Your task to perform on an android device: delete browsing data in the chrome app Image 0: 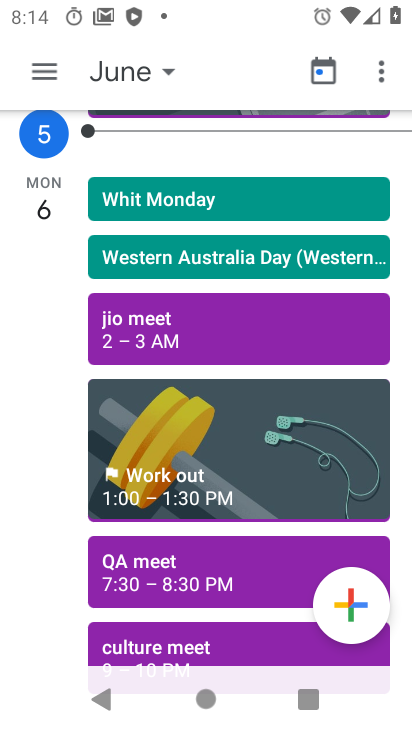
Step 0: press home button
Your task to perform on an android device: delete browsing data in the chrome app Image 1: 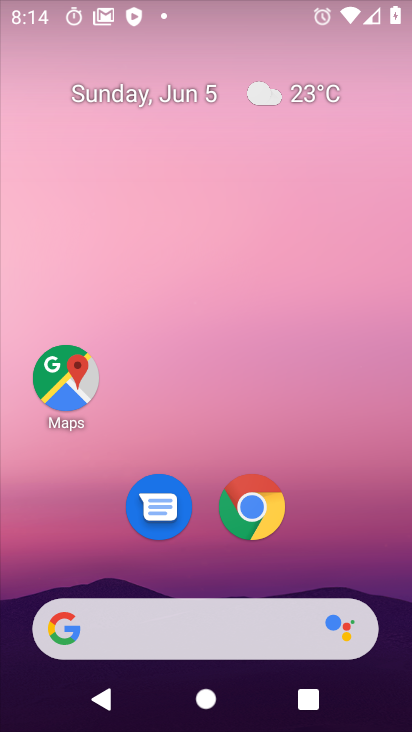
Step 1: drag from (274, 663) to (217, 154)
Your task to perform on an android device: delete browsing data in the chrome app Image 2: 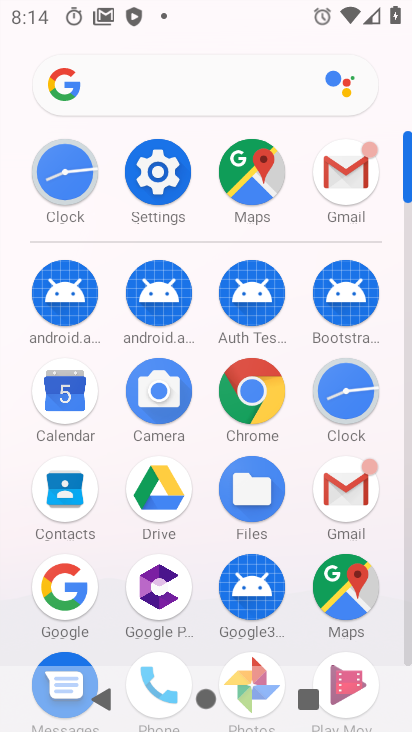
Step 2: click (249, 385)
Your task to perform on an android device: delete browsing data in the chrome app Image 3: 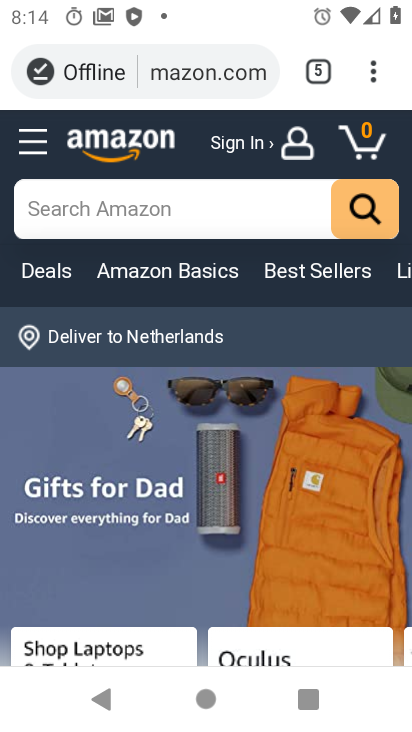
Step 3: click (359, 76)
Your task to perform on an android device: delete browsing data in the chrome app Image 4: 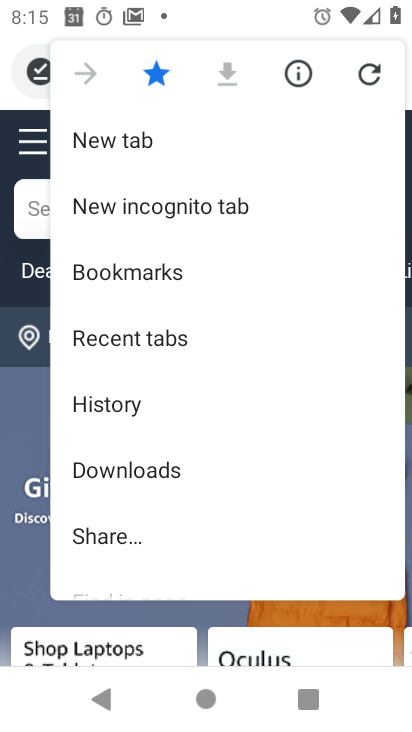
Step 4: drag from (155, 537) to (164, 365)
Your task to perform on an android device: delete browsing data in the chrome app Image 5: 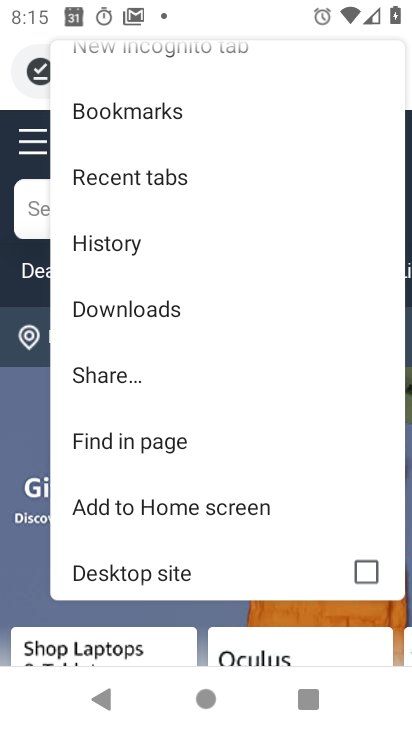
Step 5: drag from (148, 556) to (183, 366)
Your task to perform on an android device: delete browsing data in the chrome app Image 6: 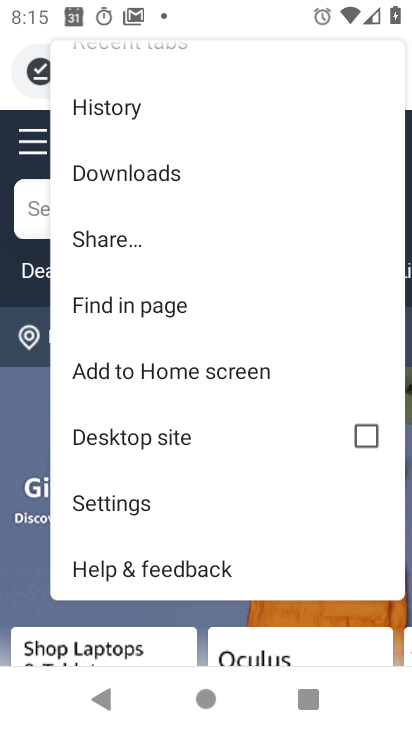
Step 6: click (156, 509)
Your task to perform on an android device: delete browsing data in the chrome app Image 7: 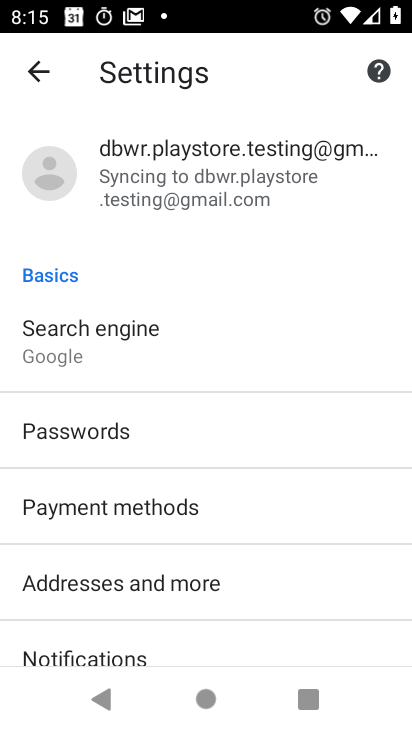
Step 7: drag from (238, 625) to (252, 318)
Your task to perform on an android device: delete browsing data in the chrome app Image 8: 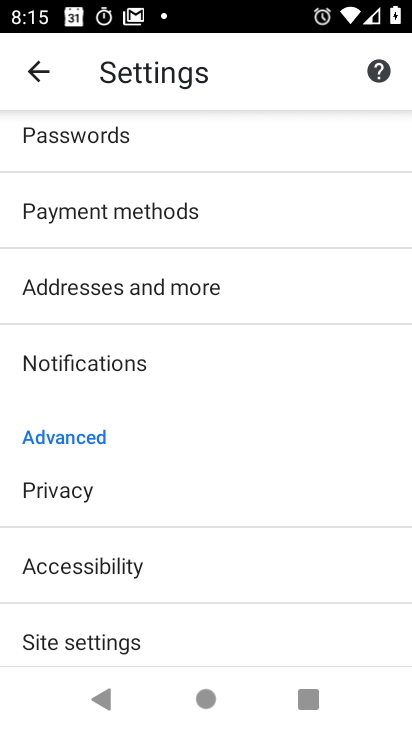
Step 8: click (60, 492)
Your task to perform on an android device: delete browsing data in the chrome app Image 9: 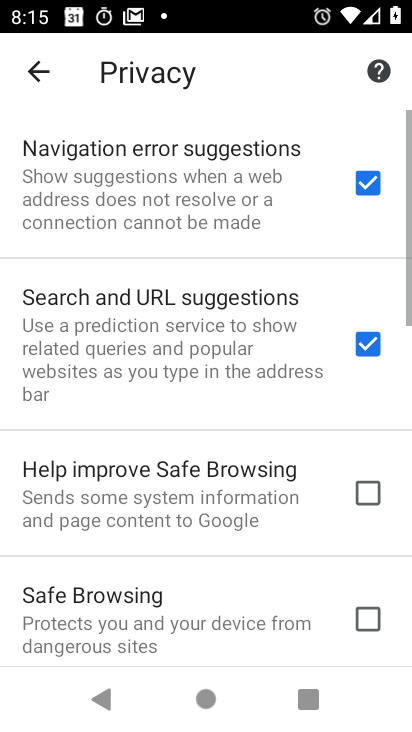
Step 9: drag from (91, 545) to (123, 247)
Your task to perform on an android device: delete browsing data in the chrome app Image 10: 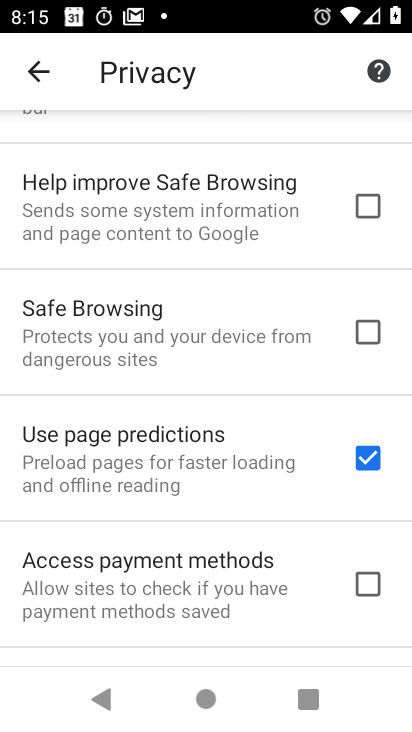
Step 10: drag from (145, 577) to (187, 239)
Your task to perform on an android device: delete browsing data in the chrome app Image 11: 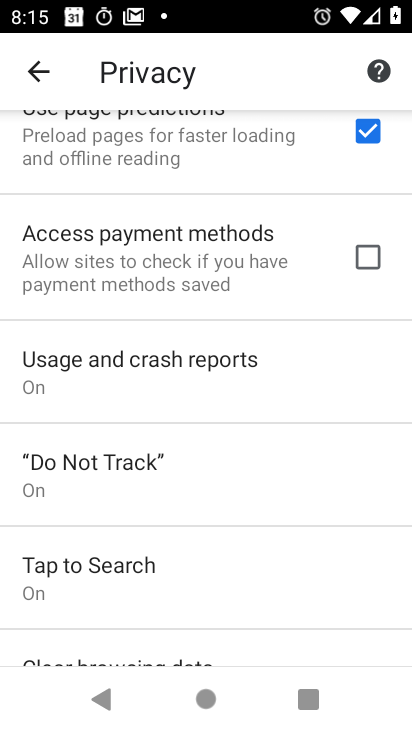
Step 11: drag from (97, 568) to (144, 221)
Your task to perform on an android device: delete browsing data in the chrome app Image 12: 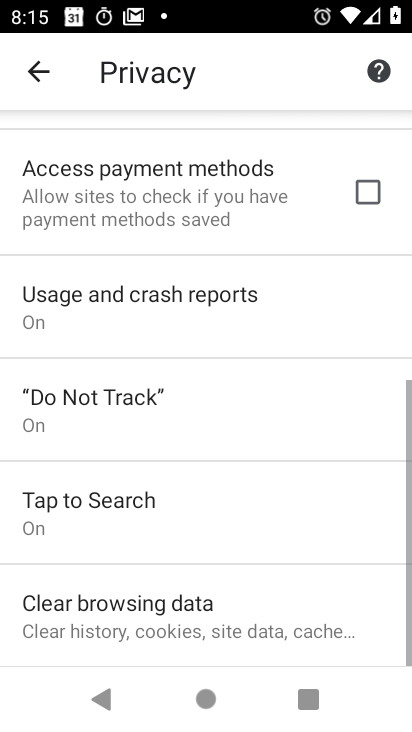
Step 12: click (179, 609)
Your task to perform on an android device: delete browsing data in the chrome app Image 13: 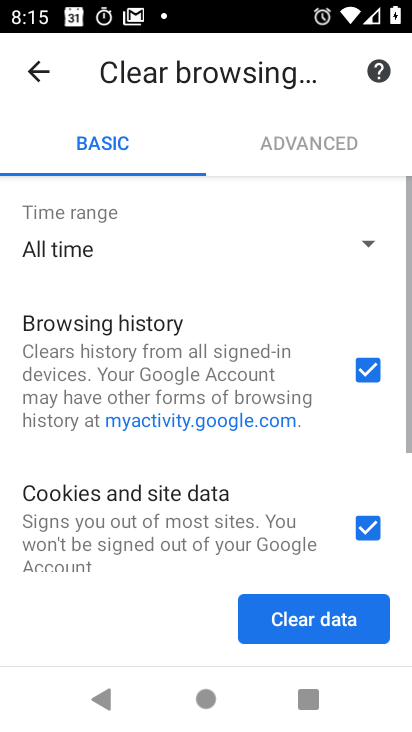
Step 13: click (332, 612)
Your task to perform on an android device: delete browsing data in the chrome app Image 14: 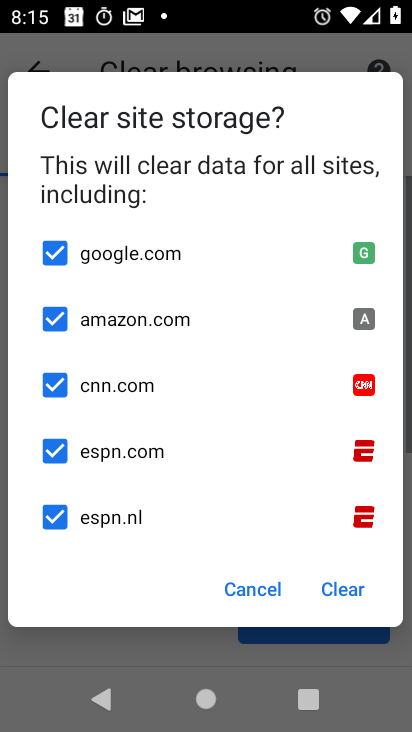
Step 14: task complete